Your task to perform on an android device: Check the news Image 0: 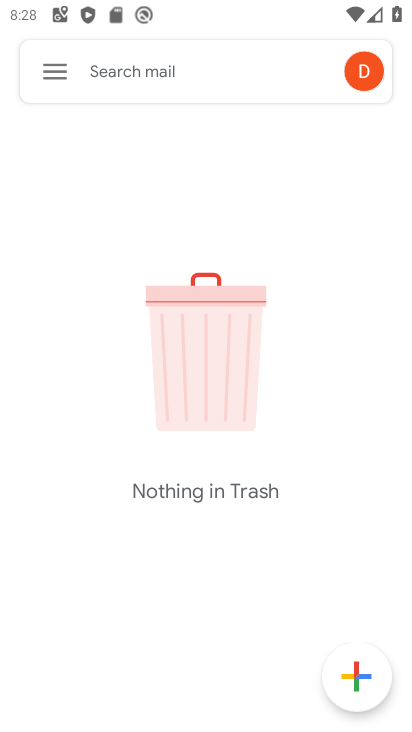
Step 0: press back button
Your task to perform on an android device: Check the news Image 1: 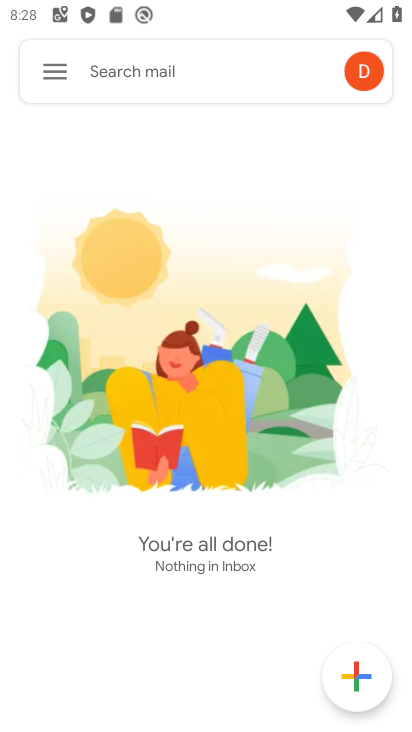
Step 1: press back button
Your task to perform on an android device: Check the news Image 2: 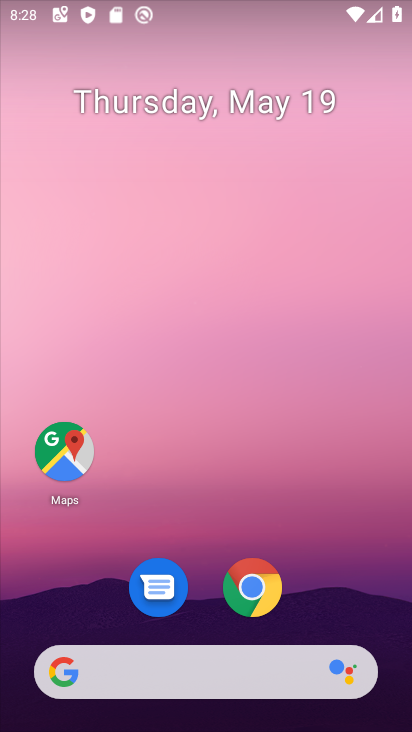
Step 2: drag from (352, 551) to (277, 32)
Your task to perform on an android device: Check the news Image 3: 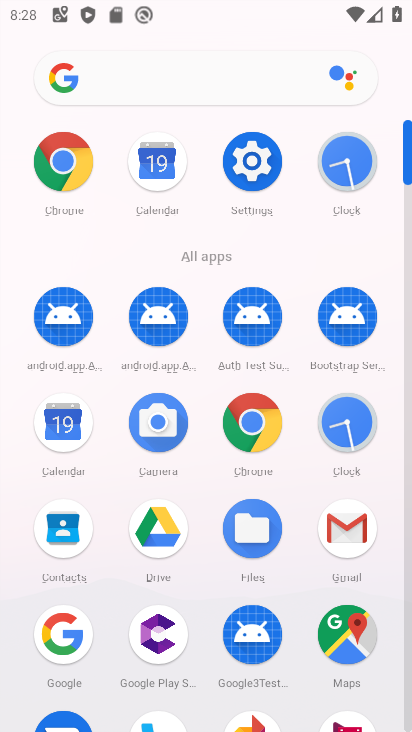
Step 3: click (248, 417)
Your task to perform on an android device: Check the news Image 4: 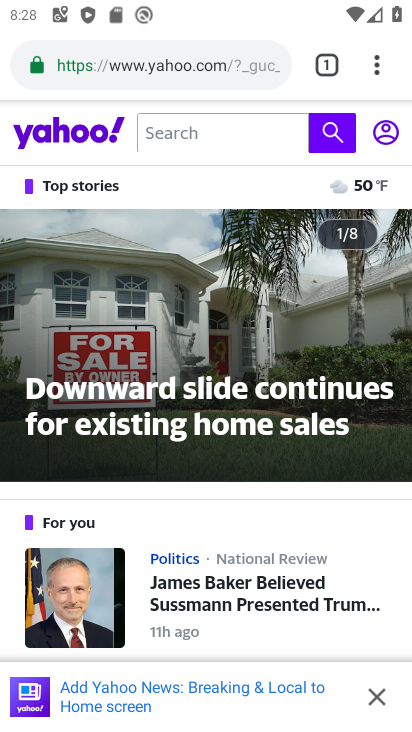
Step 4: click (165, 57)
Your task to perform on an android device: Check the news Image 5: 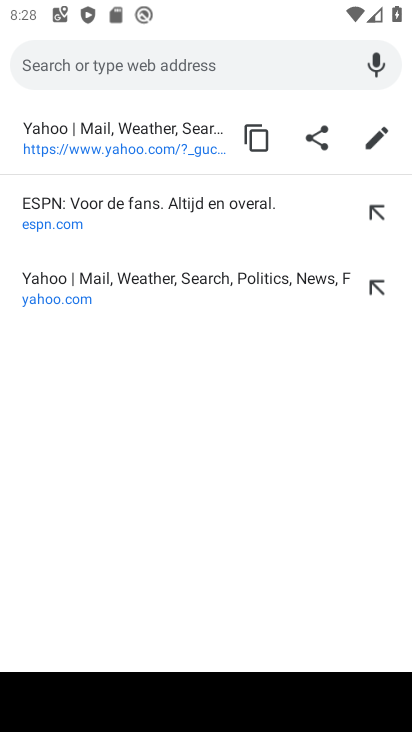
Step 5: type "Check the news"
Your task to perform on an android device: Check the news Image 6: 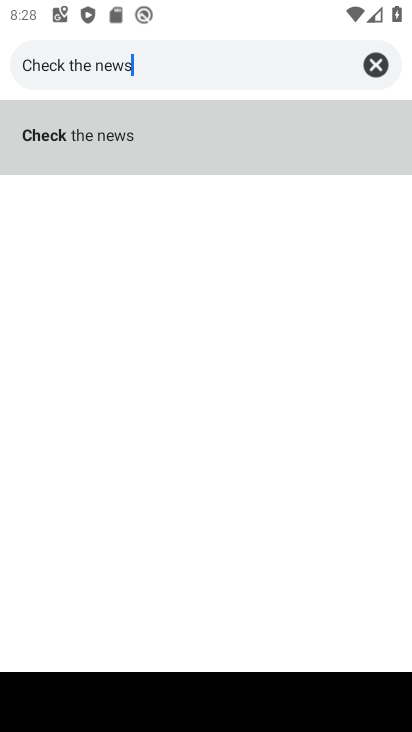
Step 6: type ""
Your task to perform on an android device: Check the news Image 7: 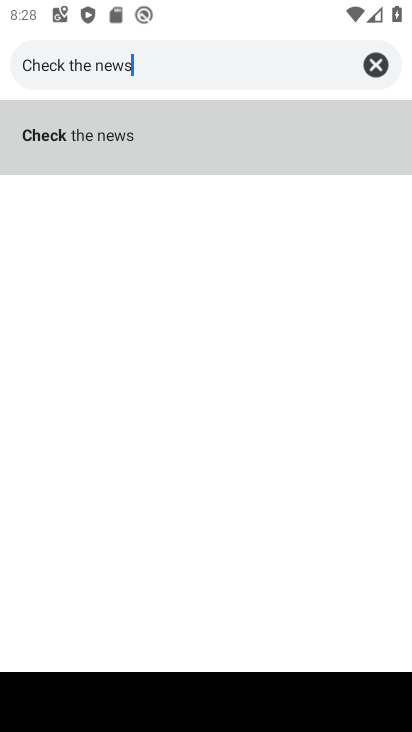
Step 7: click (101, 128)
Your task to perform on an android device: Check the news Image 8: 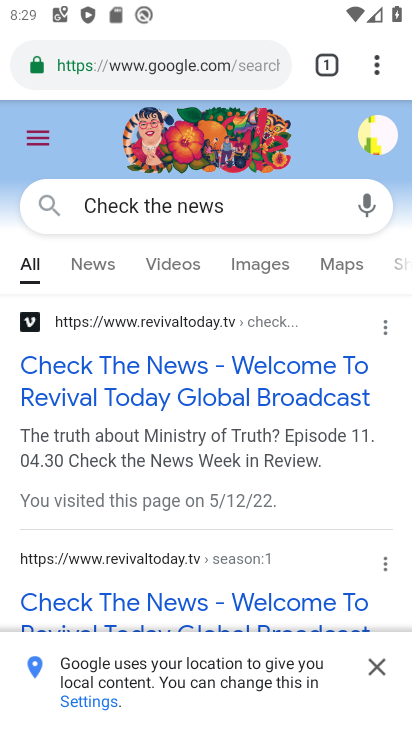
Step 8: click (82, 260)
Your task to perform on an android device: Check the news Image 9: 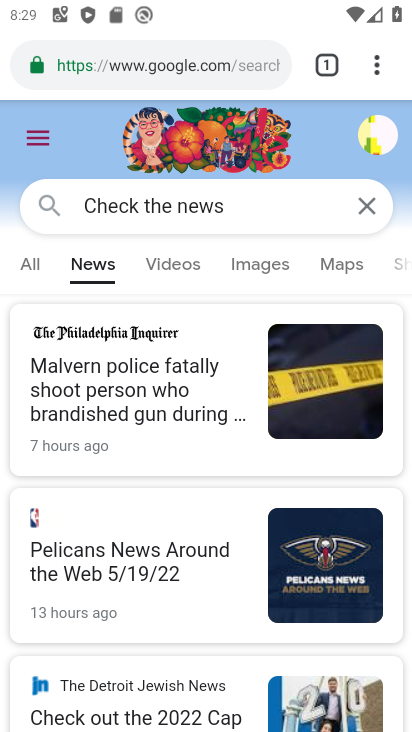
Step 9: task complete